Your task to perform on an android device: find which apps use the phone's location Image 0: 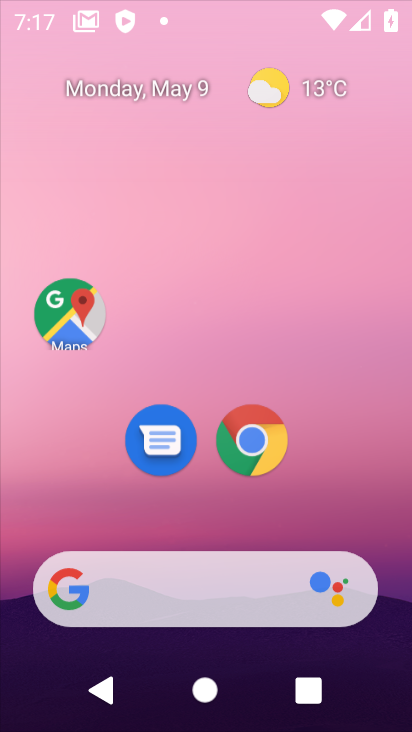
Step 0: drag from (329, 480) to (409, 119)
Your task to perform on an android device: find which apps use the phone's location Image 1: 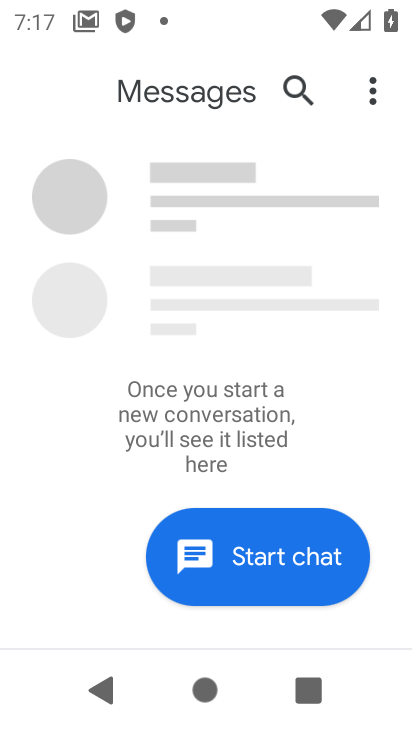
Step 1: press home button
Your task to perform on an android device: find which apps use the phone's location Image 2: 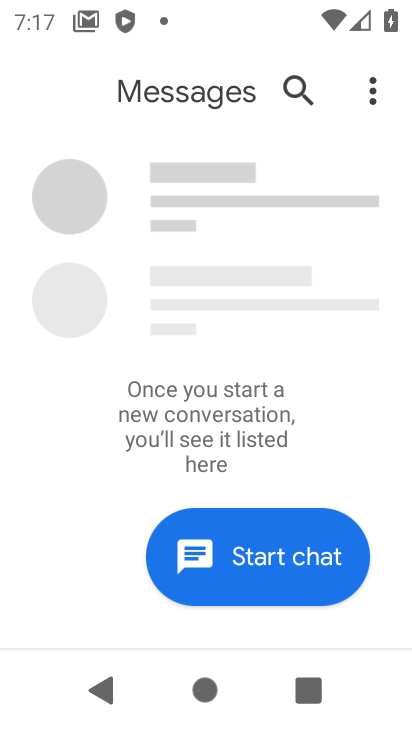
Step 2: click (400, 414)
Your task to perform on an android device: find which apps use the phone's location Image 3: 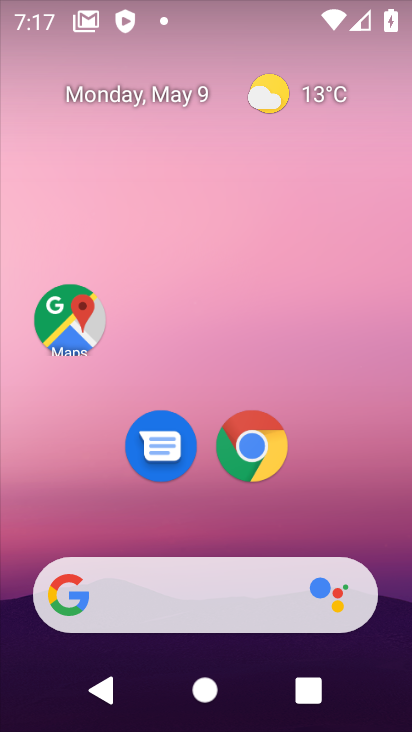
Step 3: drag from (313, 507) to (351, 171)
Your task to perform on an android device: find which apps use the phone's location Image 4: 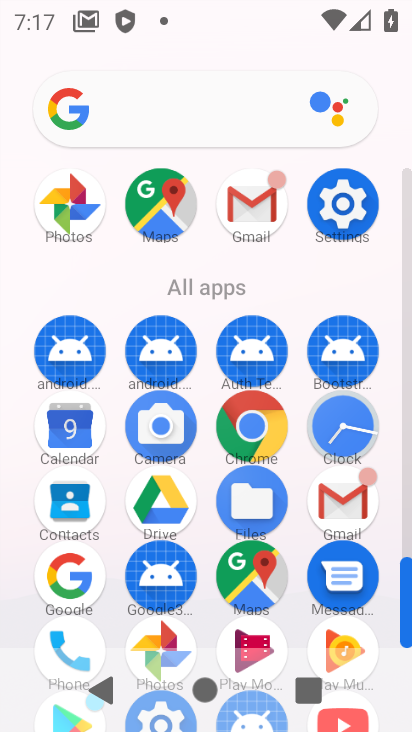
Step 4: drag from (290, 628) to (349, 266)
Your task to perform on an android device: find which apps use the phone's location Image 5: 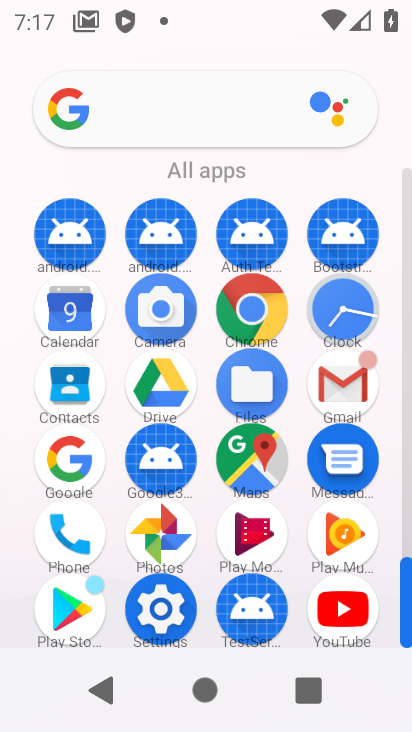
Step 5: click (166, 574)
Your task to perform on an android device: find which apps use the phone's location Image 6: 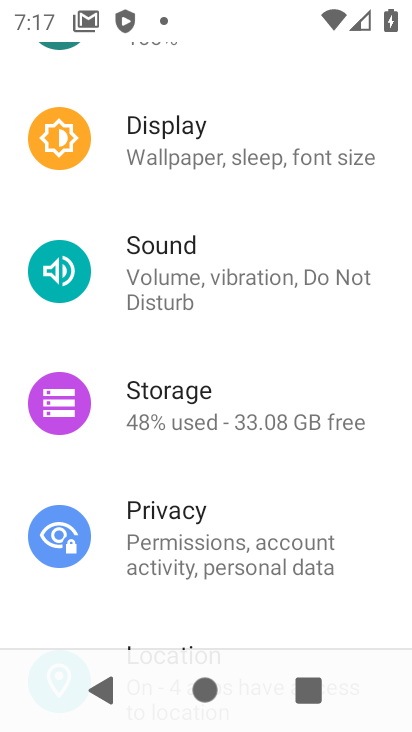
Step 6: drag from (254, 563) to (298, 148)
Your task to perform on an android device: find which apps use the phone's location Image 7: 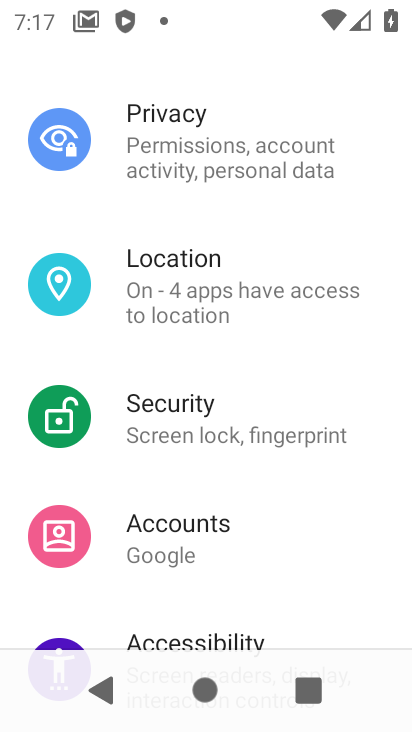
Step 7: click (275, 285)
Your task to perform on an android device: find which apps use the phone's location Image 8: 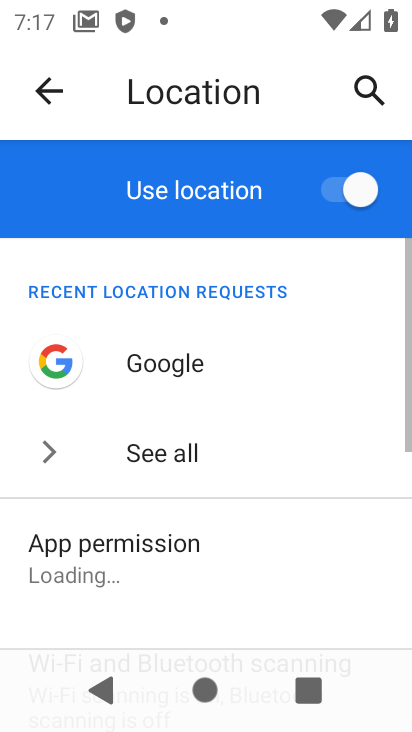
Step 8: click (194, 383)
Your task to perform on an android device: find which apps use the phone's location Image 9: 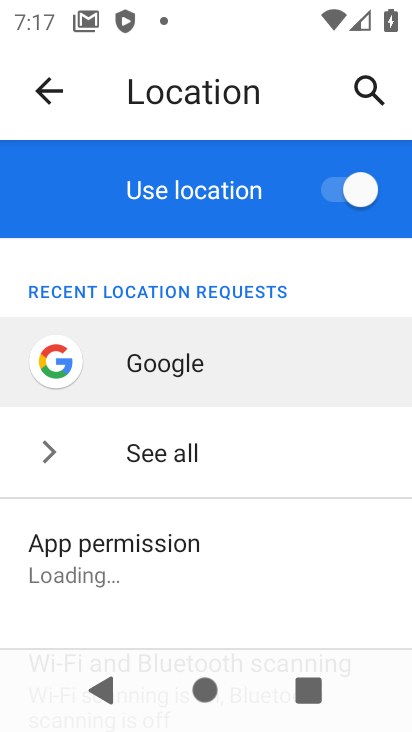
Step 9: click (194, 384)
Your task to perform on an android device: find which apps use the phone's location Image 10: 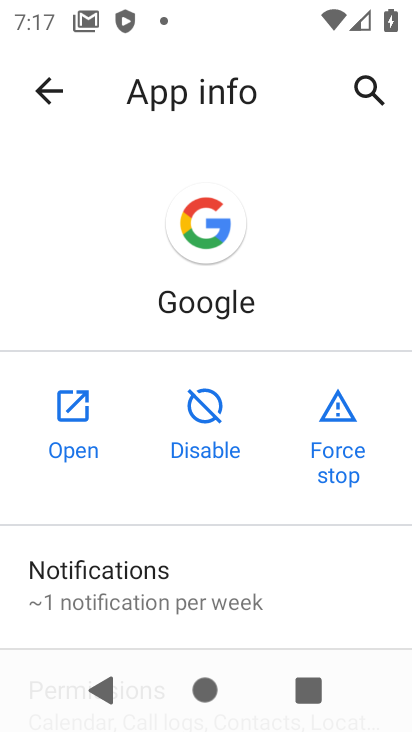
Step 10: click (194, 379)
Your task to perform on an android device: find which apps use the phone's location Image 11: 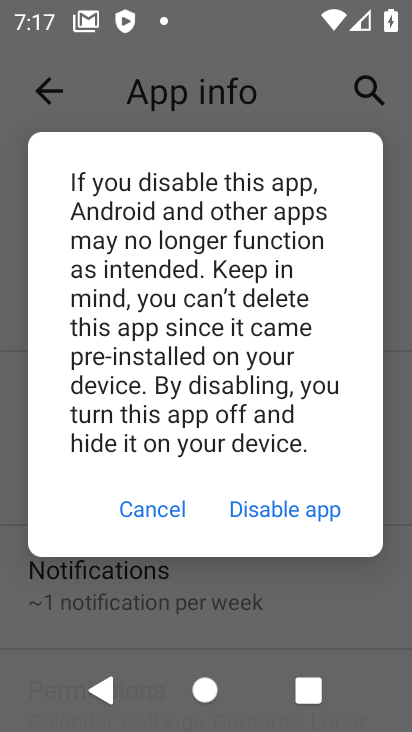
Step 11: click (164, 520)
Your task to perform on an android device: find which apps use the phone's location Image 12: 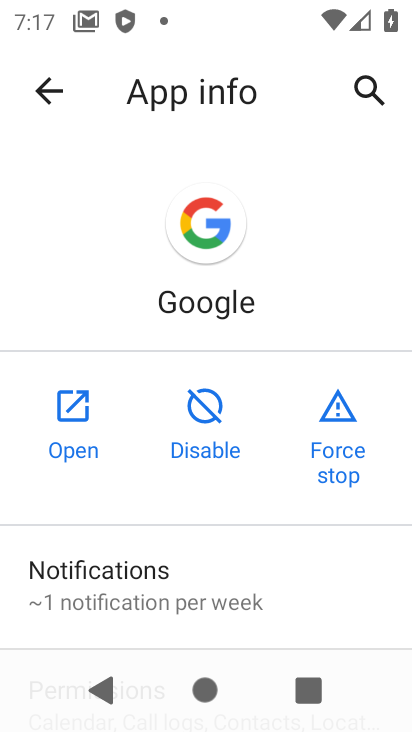
Step 12: drag from (202, 591) to (256, 253)
Your task to perform on an android device: find which apps use the phone's location Image 13: 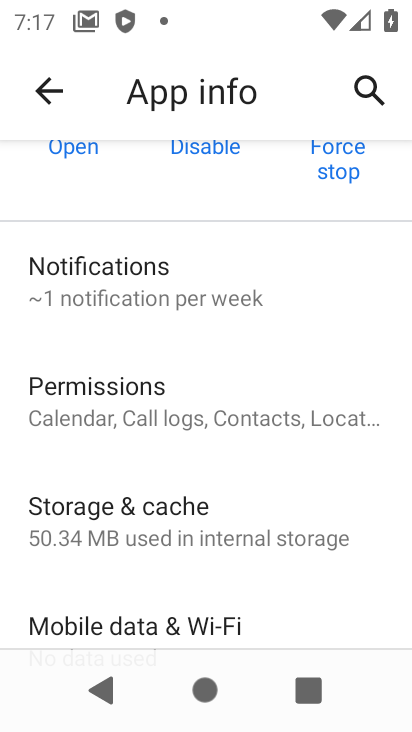
Step 13: click (208, 412)
Your task to perform on an android device: find which apps use the phone's location Image 14: 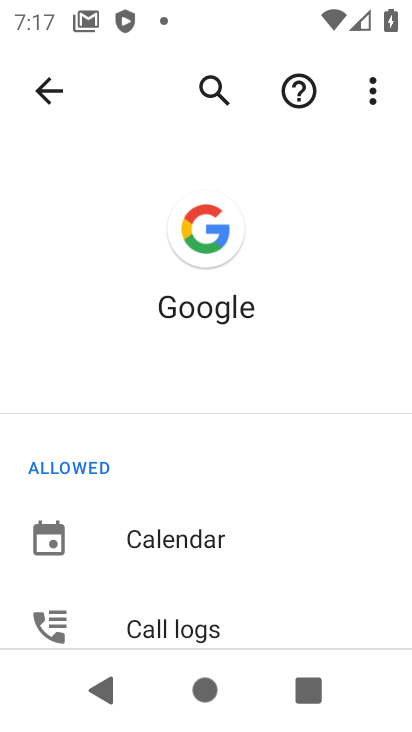
Step 14: drag from (260, 586) to (311, 215)
Your task to perform on an android device: find which apps use the phone's location Image 15: 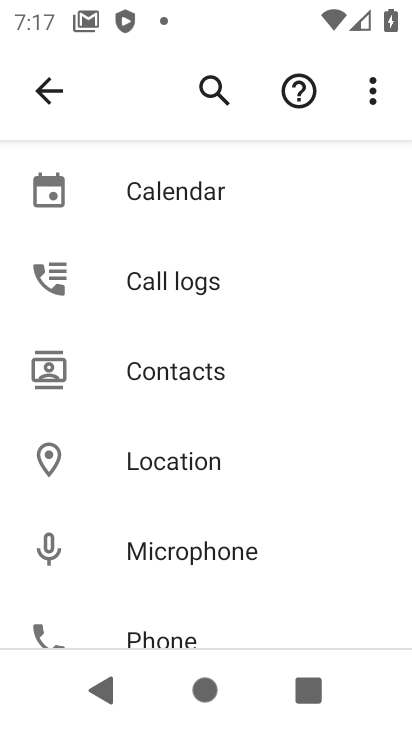
Step 15: click (215, 461)
Your task to perform on an android device: find which apps use the phone's location Image 16: 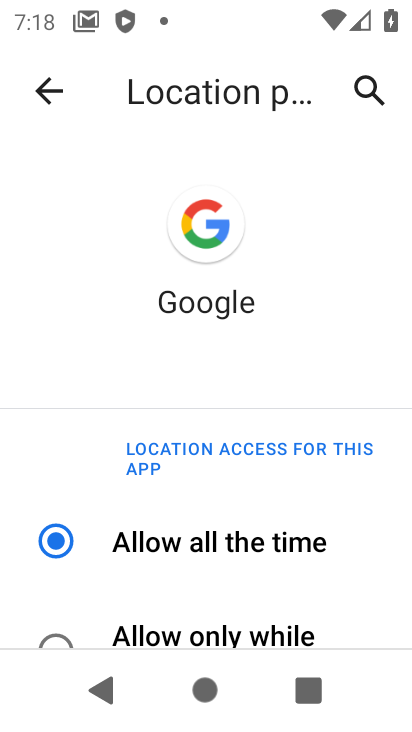
Step 16: task complete